Your task to perform on an android device: Search for a cheap bike on Walmart Image 0: 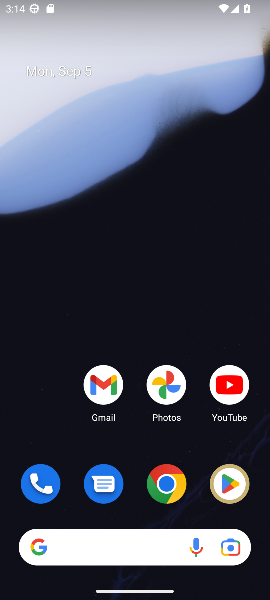
Step 0: click (165, 481)
Your task to perform on an android device: Search for a cheap bike on Walmart Image 1: 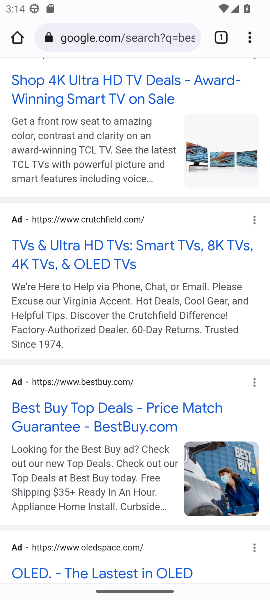
Step 1: click (167, 29)
Your task to perform on an android device: Search for a cheap bike on Walmart Image 2: 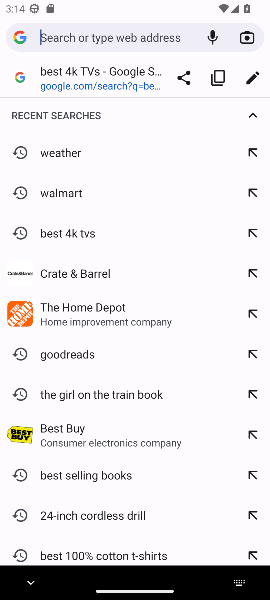
Step 2: type "Walmart"
Your task to perform on an android device: Search for a cheap bike on Walmart Image 3: 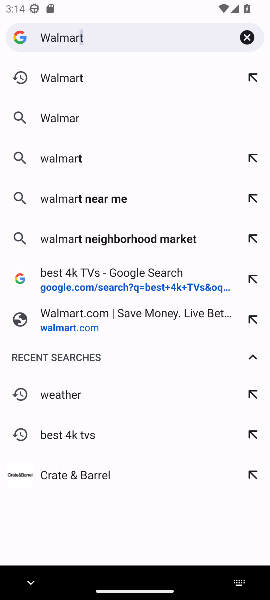
Step 3: press enter
Your task to perform on an android device: Search for a cheap bike on Walmart Image 4: 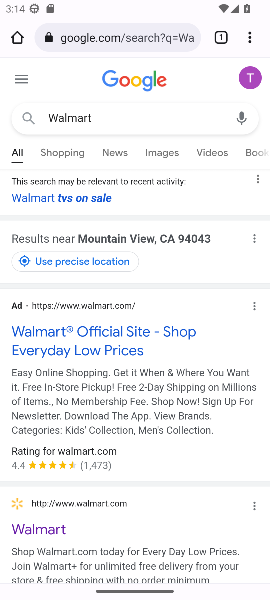
Step 4: drag from (79, 460) to (150, 239)
Your task to perform on an android device: Search for a cheap bike on Walmart Image 5: 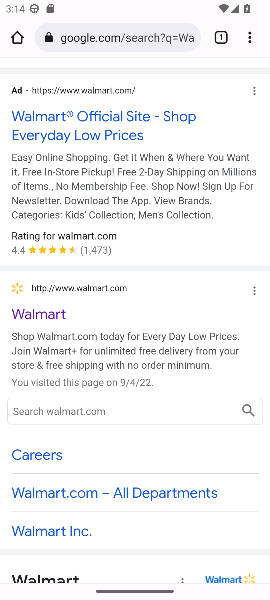
Step 5: click (48, 310)
Your task to perform on an android device: Search for a cheap bike on Walmart Image 6: 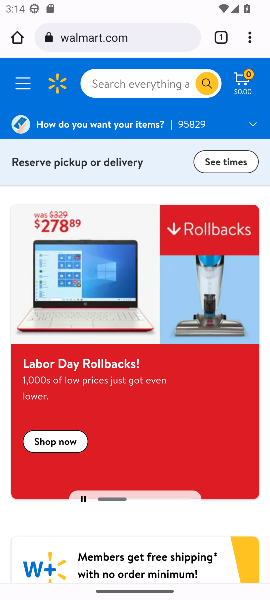
Step 6: click (159, 76)
Your task to perform on an android device: Search for a cheap bike on Walmart Image 7: 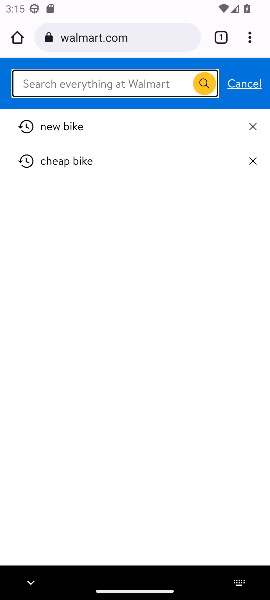
Step 7: type "cheap bike"
Your task to perform on an android device: Search for a cheap bike on Walmart Image 8: 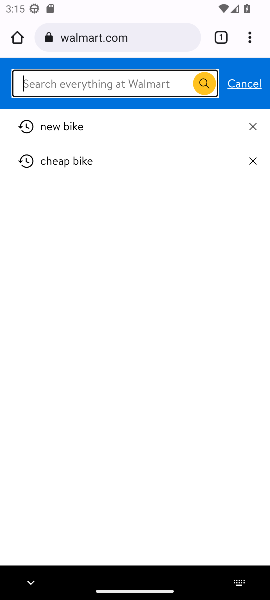
Step 8: press enter
Your task to perform on an android device: Search for a cheap bike on Walmart Image 9: 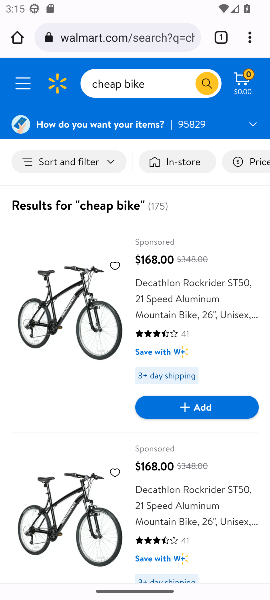
Step 9: task complete